Your task to perform on an android device: open app "YouTube Kids" (install if not already installed) and go to login screen Image 0: 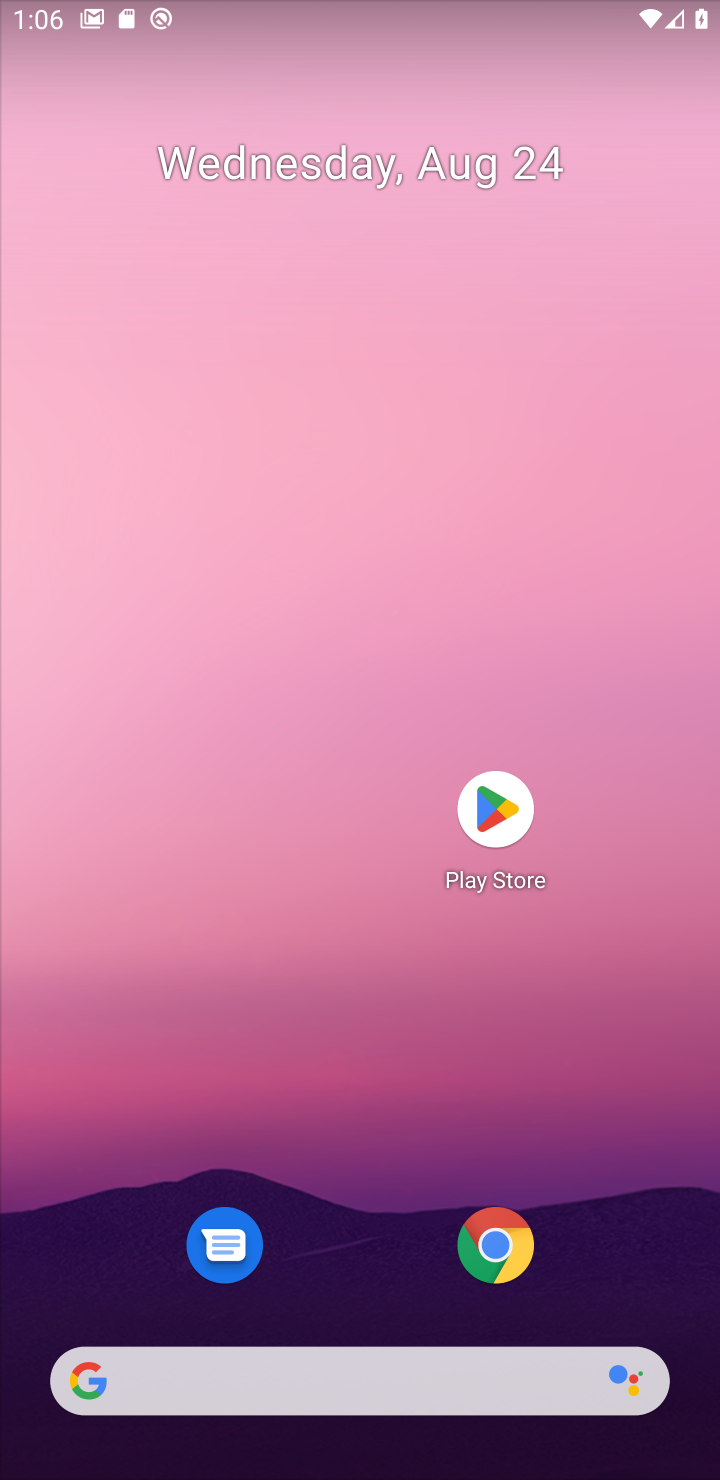
Step 0: click (494, 836)
Your task to perform on an android device: open app "YouTube Kids" (install if not already installed) and go to login screen Image 1: 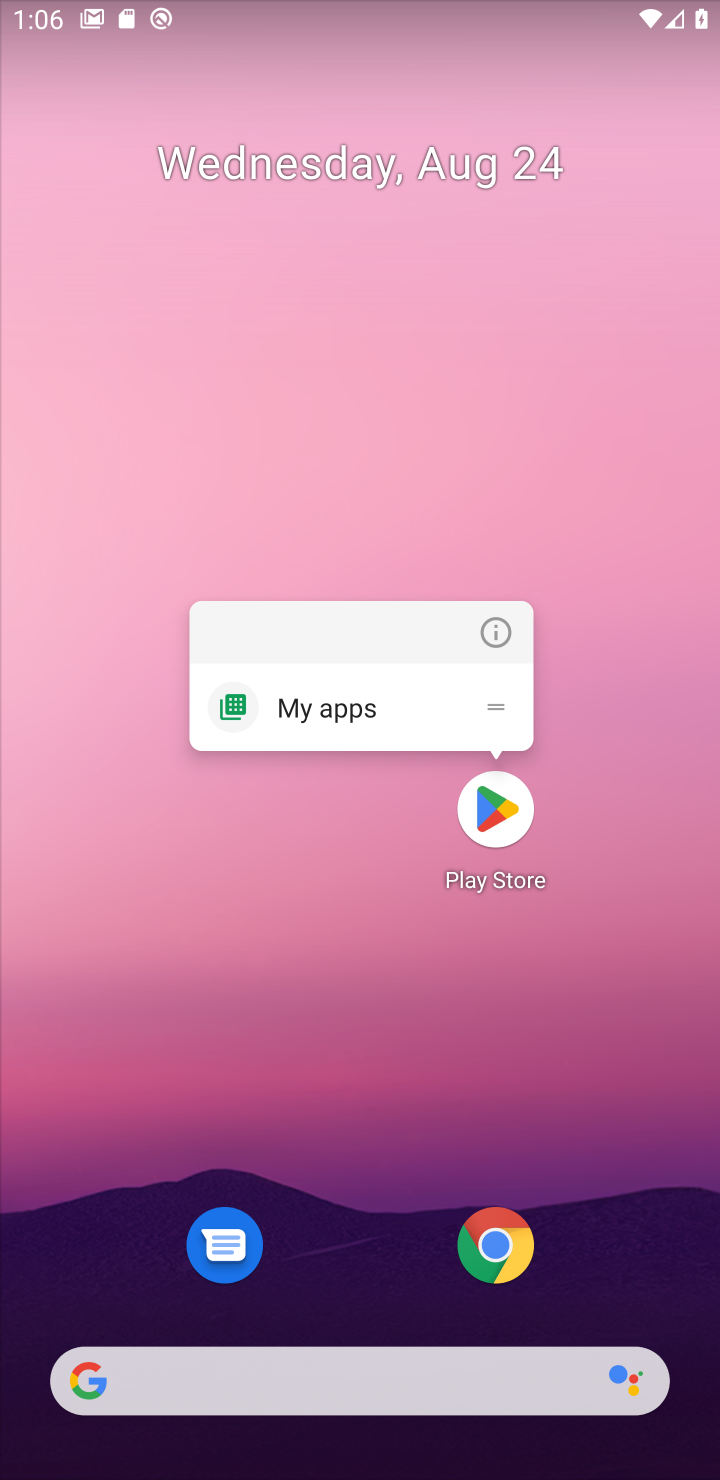
Step 1: click (494, 836)
Your task to perform on an android device: open app "YouTube Kids" (install if not already installed) and go to login screen Image 2: 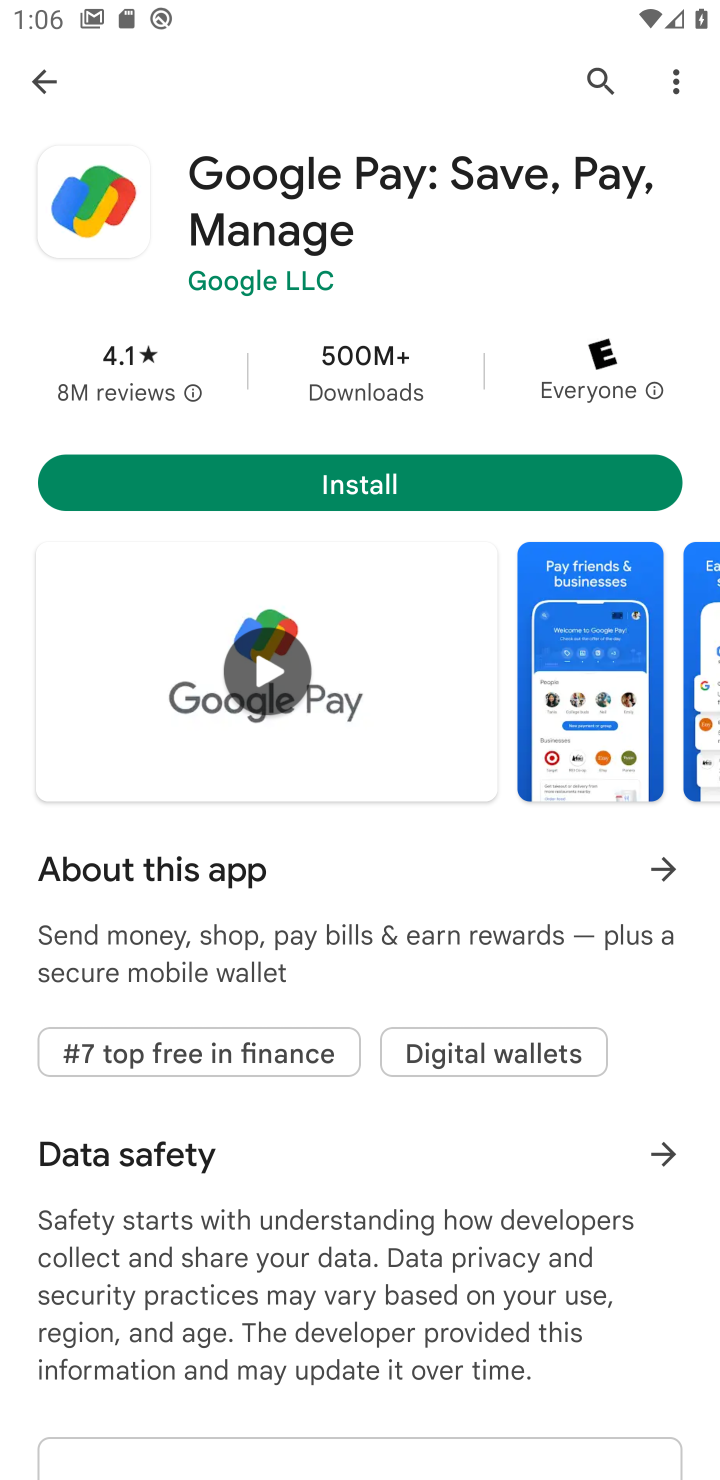
Step 2: click (587, 59)
Your task to perform on an android device: open app "YouTube Kids" (install if not already installed) and go to login screen Image 3: 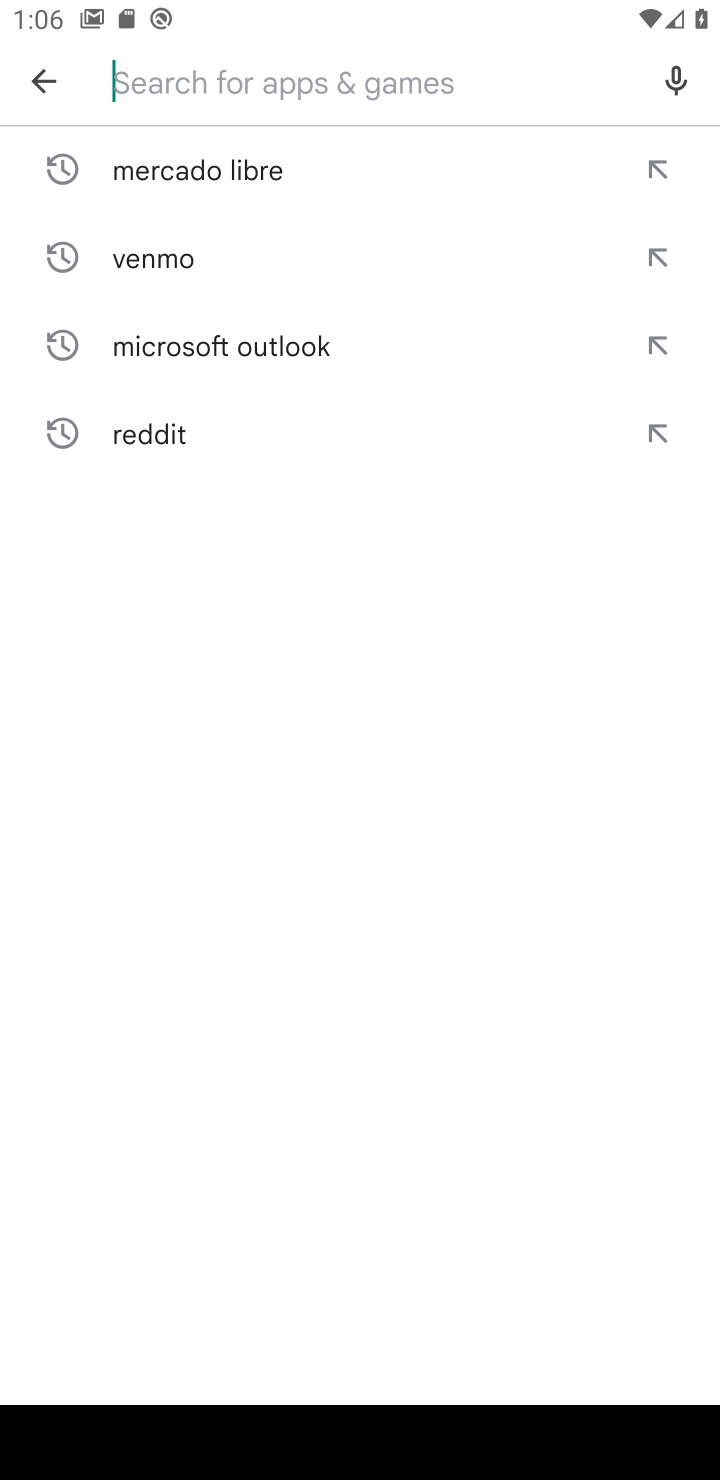
Step 3: type "YouTube Kids"
Your task to perform on an android device: open app "YouTube Kids" (install if not already installed) and go to login screen Image 4: 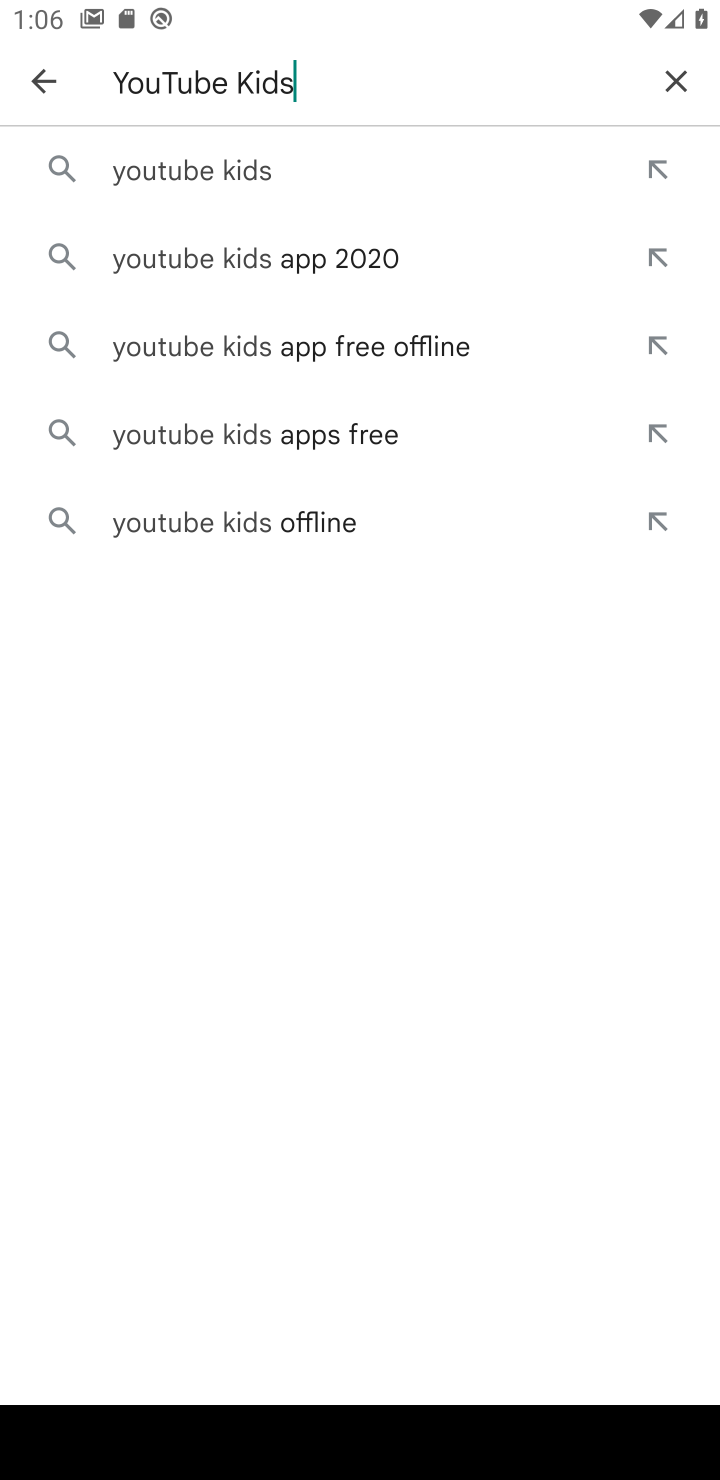
Step 4: click (242, 164)
Your task to perform on an android device: open app "YouTube Kids" (install if not already installed) and go to login screen Image 5: 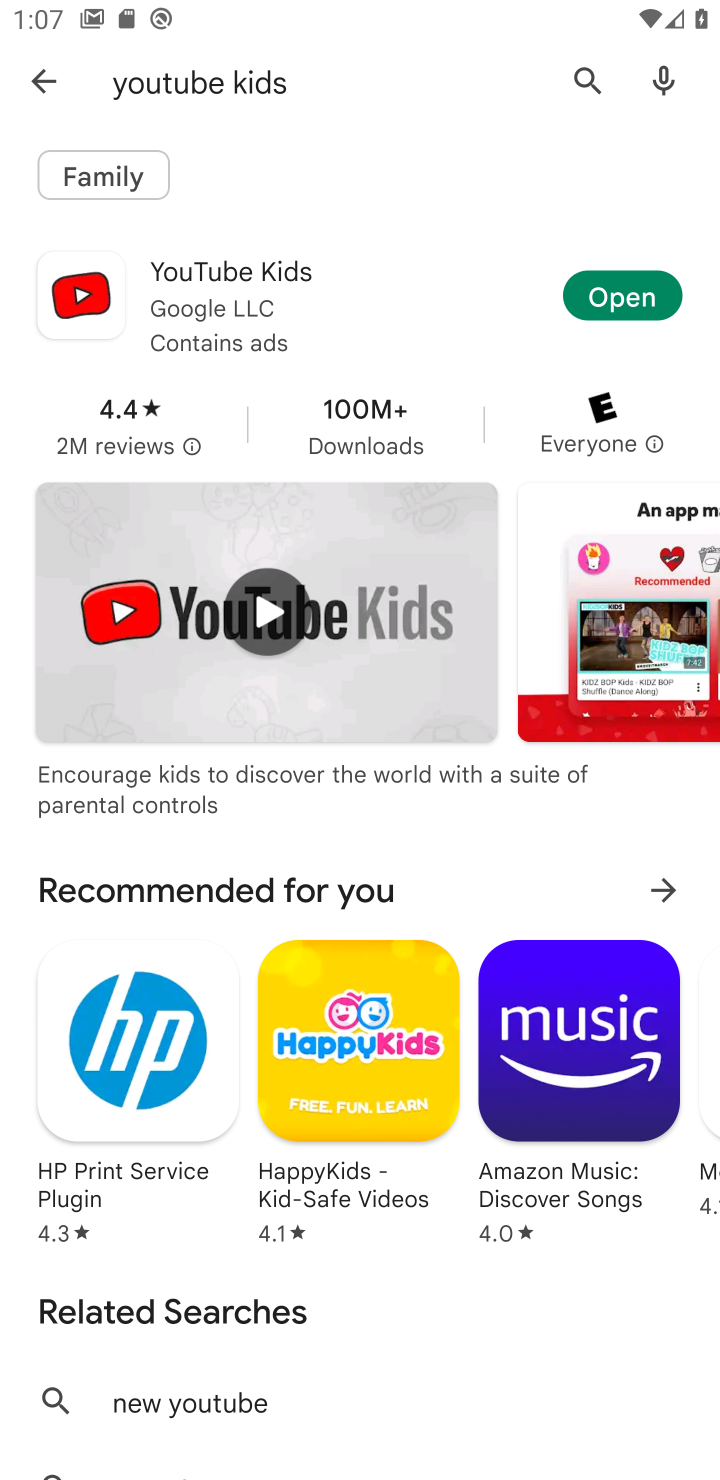
Step 5: click (596, 297)
Your task to perform on an android device: open app "YouTube Kids" (install if not already installed) and go to login screen Image 6: 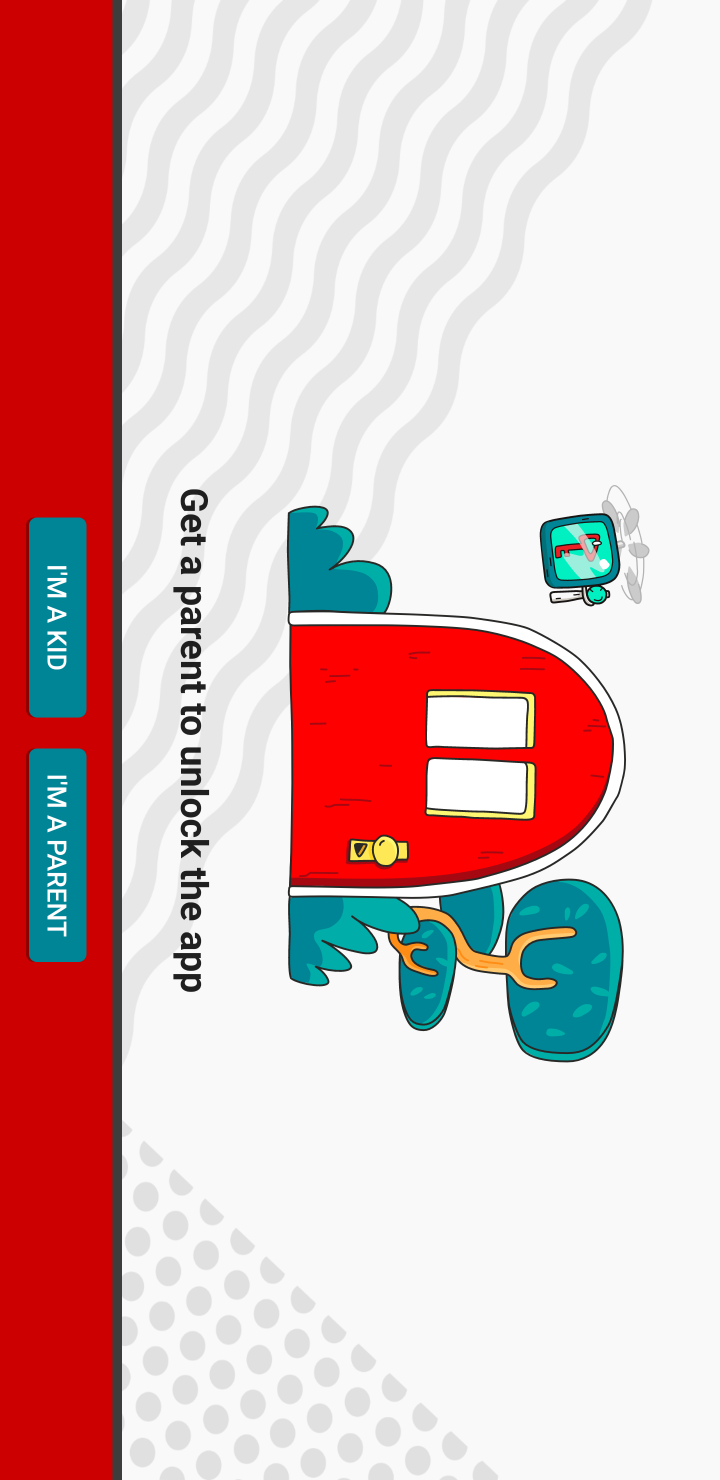
Step 6: task complete